Your task to perform on an android device: Open the calendar app, open the side menu, and click the "Day" option Image 0: 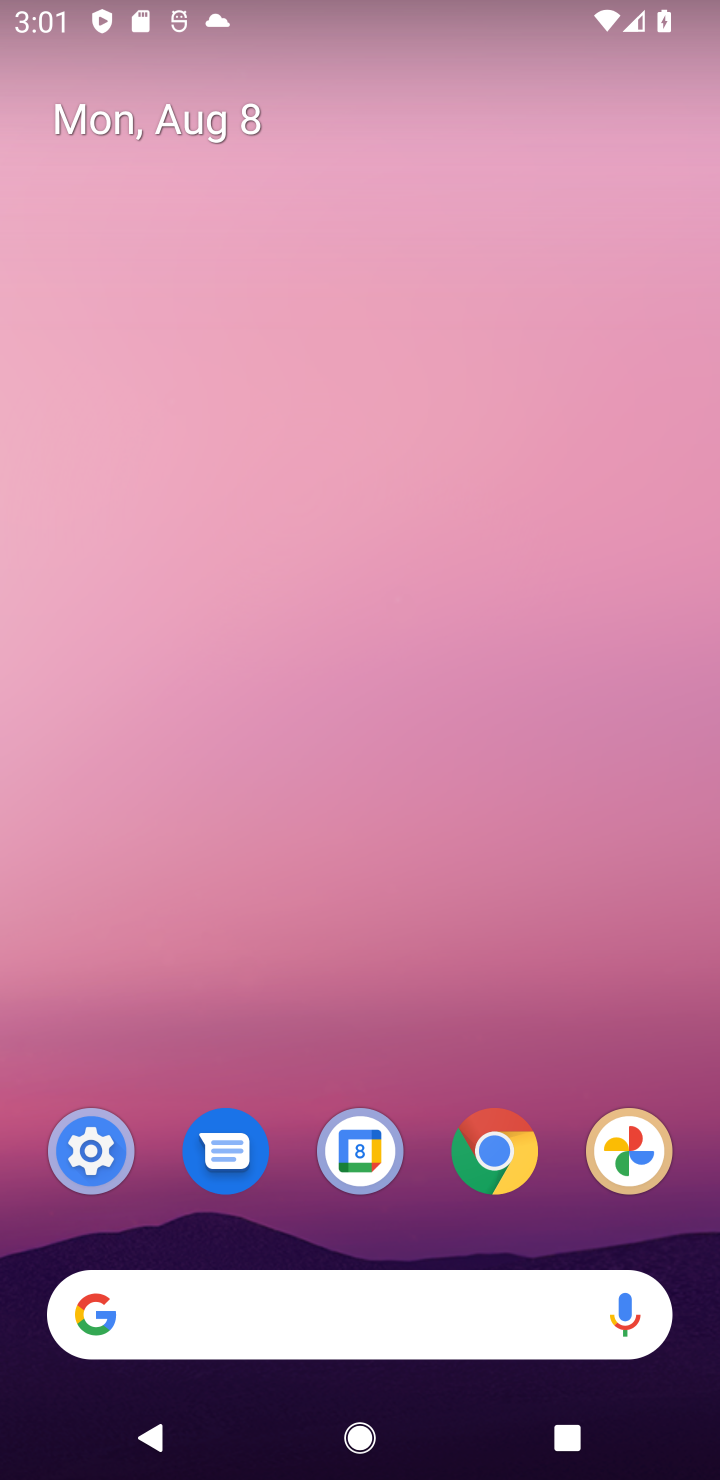
Step 0: click (368, 1142)
Your task to perform on an android device: Open the calendar app, open the side menu, and click the "Day" option Image 1: 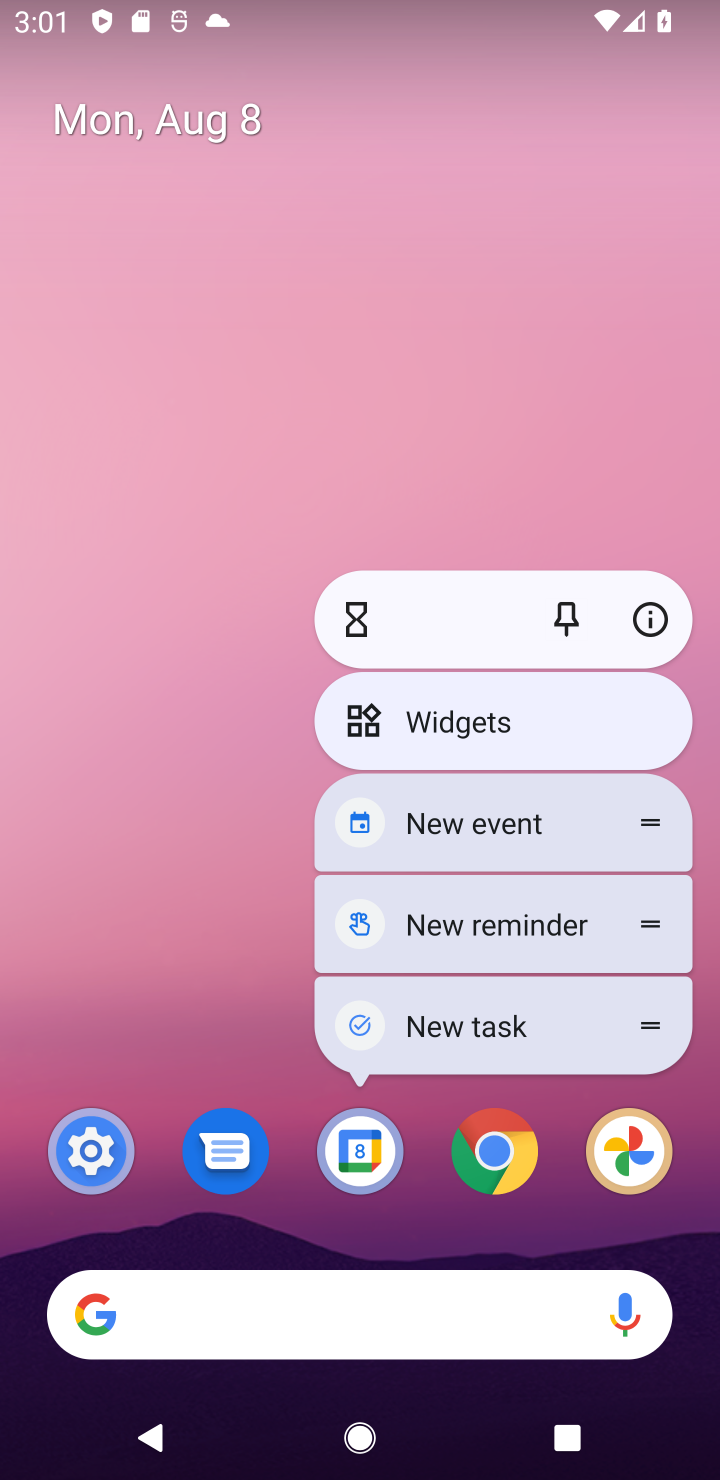
Step 1: click (361, 1167)
Your task to perform on an android device: Open the calendar app, open the side menu, and click the "Day" option Image 2: 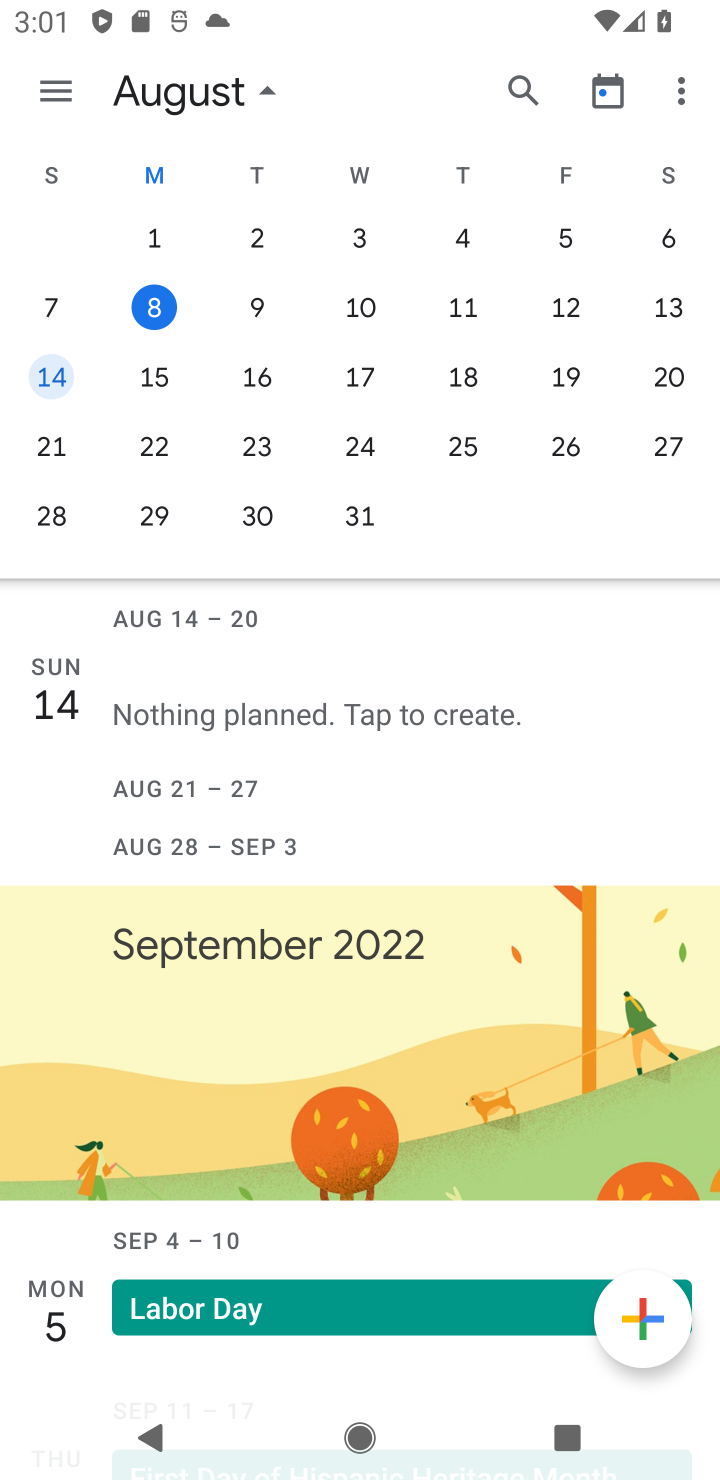
Step 2: click (55, 77)
Your task to perform on an android device: Open the calendar app, open the side menu, and click the "Day" option Image 3: 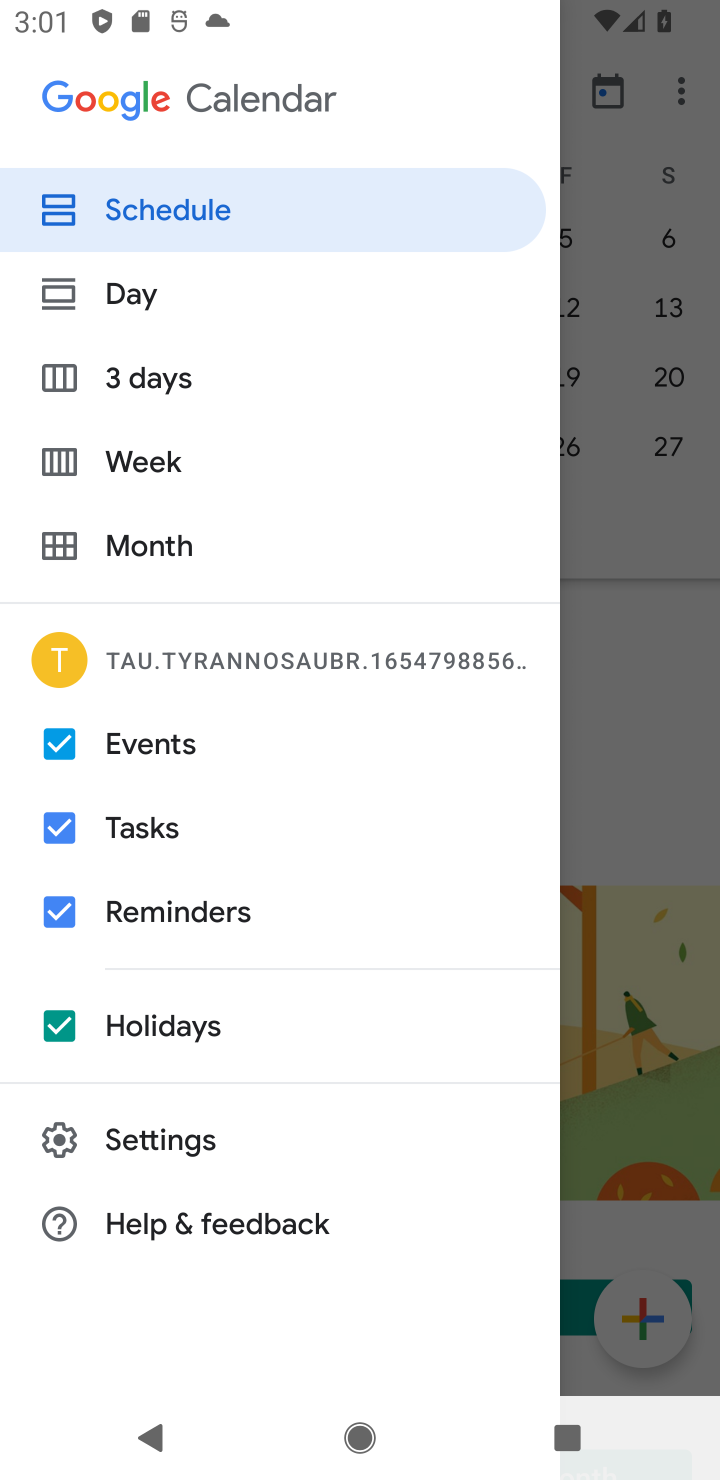
Step 3: click (155, 308)
Your task to perform on an android device: Open the calendar app, open the side menu, and click the "Day" option Image 4: 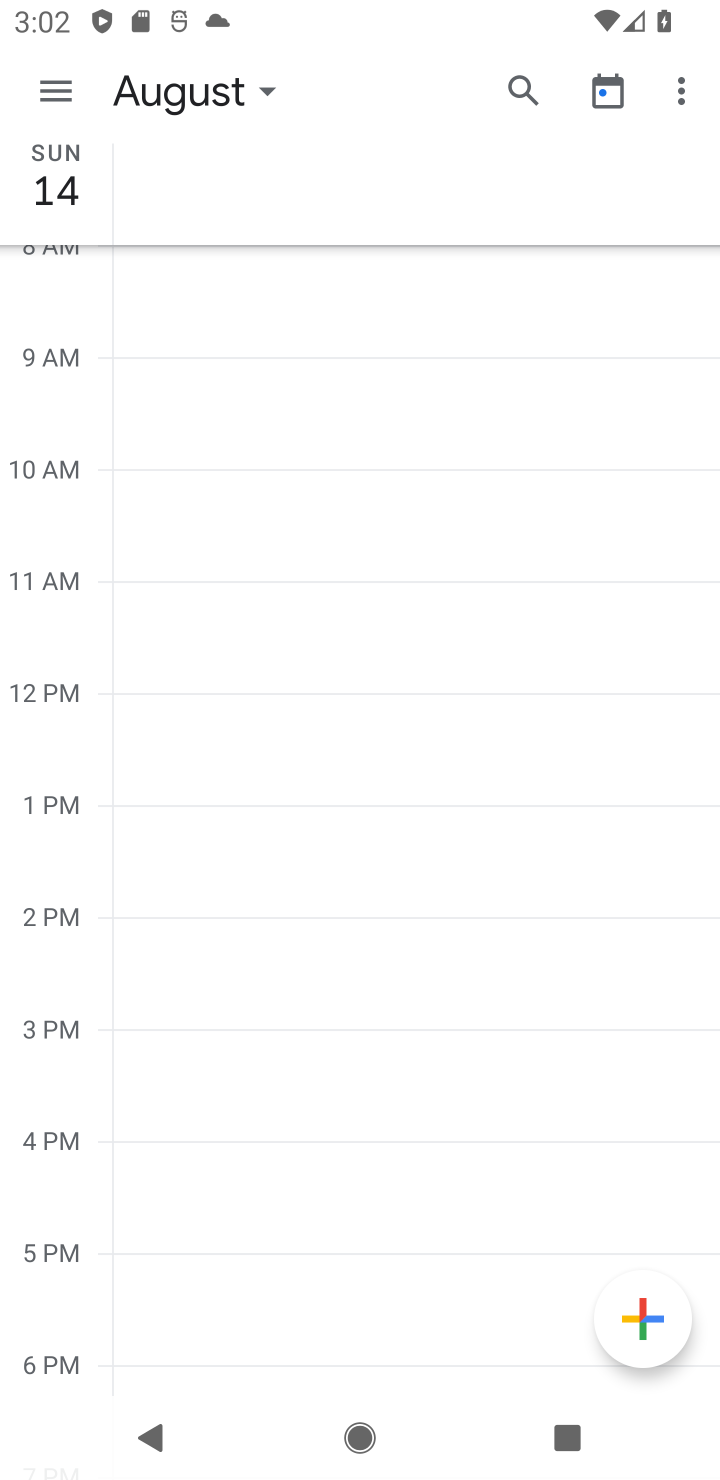
Step 4: task complete